Your task to perform on an android device: open the mobile data screen to see how much data has been used Image 0: 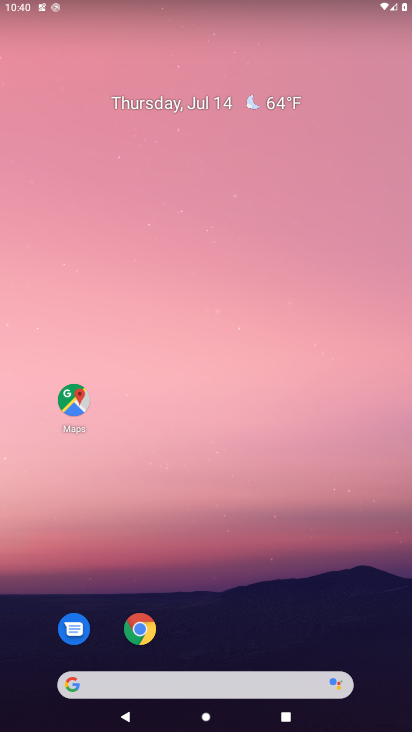
Step 0: drag from (183, 641) to (188, 282)
Your task to perform on an android device: open the mobile data screen to see how much data has been used Image 1: 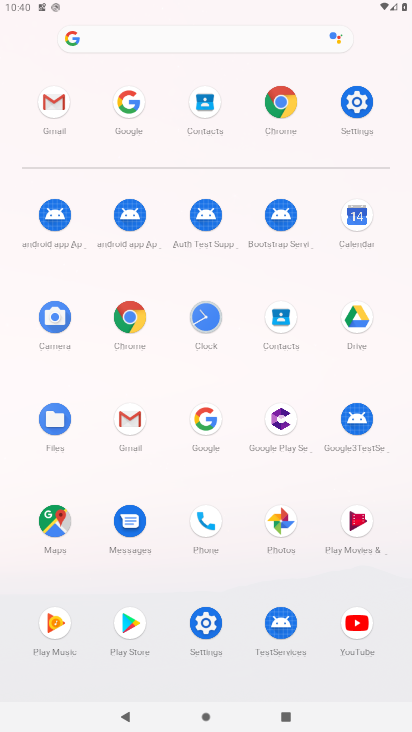
Step 1: click (350, 96)
Your task to perform on an android device: open the mobile data screen to see how much data has been used Image 2: 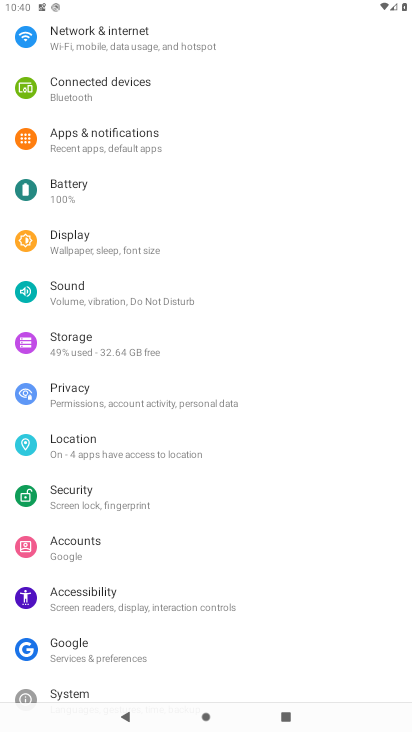
Step 2: click (89, 42)
Your task to perform on an android device: open the mobile data screen to see how much data has been used Image 3: 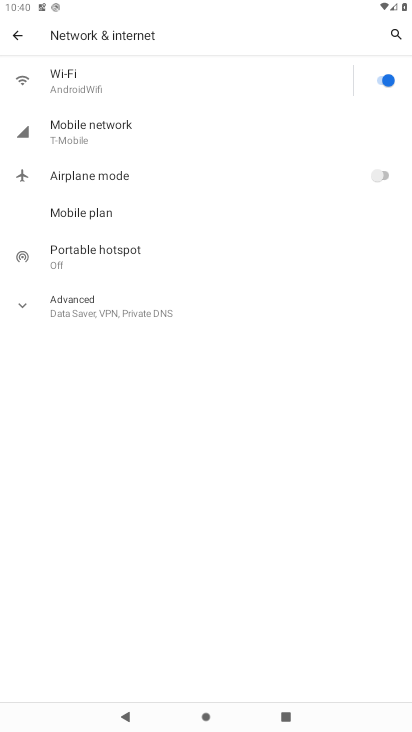
Step 3: click (96, 138)
Your task to perform on an android device: open the mobile data screen to see how much data has been used Image 4: 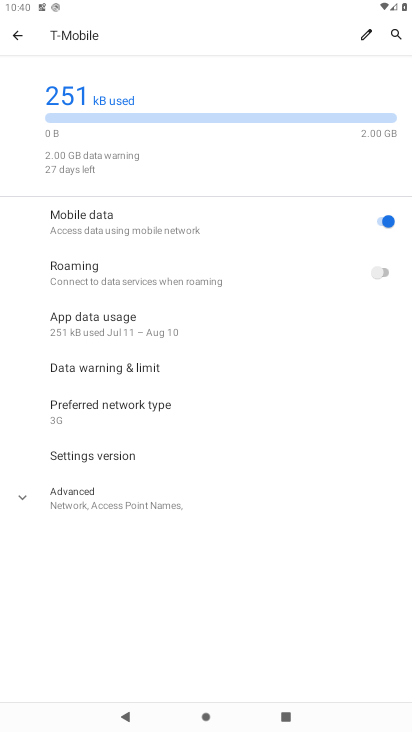
Step 4: task complete